Your task to perform on an android device: Clear the cart on walmart.com. Search for "asus rog" on walmart.com, select the first entry, and add it to the cart. Image 0: 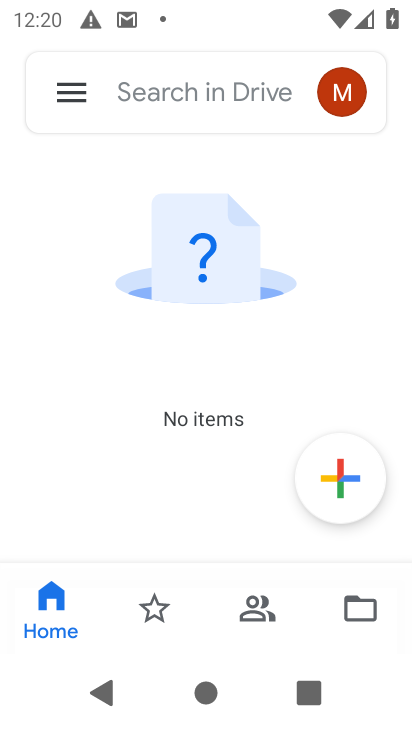
Step 0: press home button
Your task to perform on an android device: Clear the cart on walmart.com. Search for "asus rog" on walmart.com, select the first entry, and add it to the cart. Image 1: 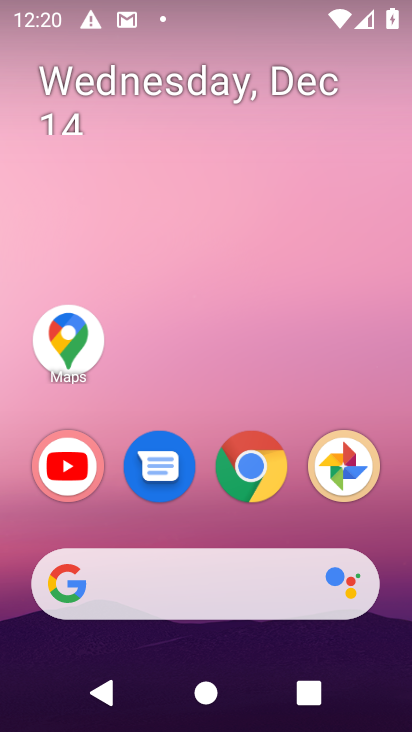
Step 1: click (198, 586)
Your task to perform on an android device: Clear the cart on walmart.com. Search for "asus rog" on walmart.com, select the first entry, and add it to the cart. Image 2: 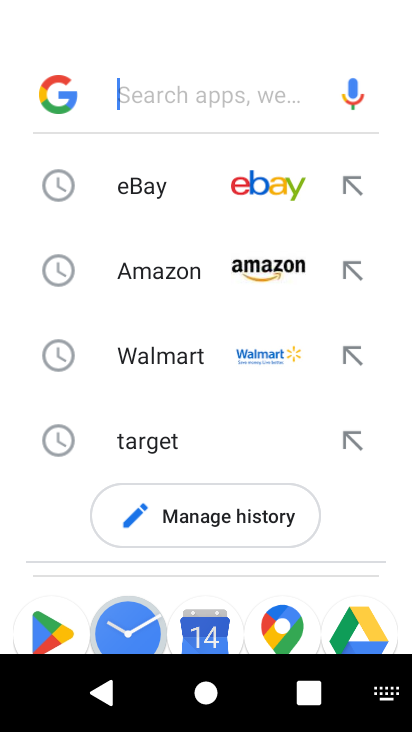
Step 2: type " walmart.com"
Your task to perform on an android device: Clear the cart on walmart.com. Search for "asus rog" on walmart.com, select the first entry, and add it to the cart. Image 3: 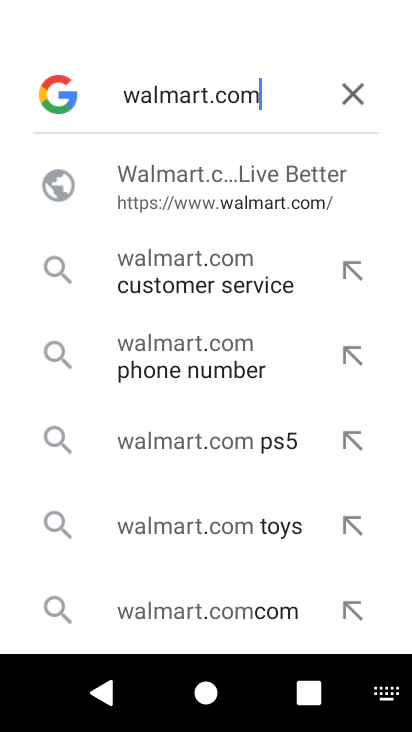
Step 3: click (295, 181)
Your task to perform on an android device: Clear the cart on walmart.com. Search for "asus rog" on walmart.com, select the first entry, and add it to the cart. Image 4: 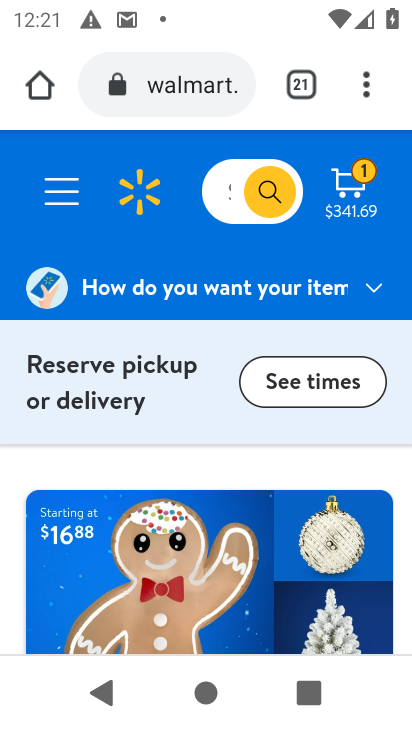
Step 4: click (358, 185)
Your task to perform on an android device: Clear the cart on walmart.com. Search for "asus rog" on walmart.com, select the first entry, and add it to the cart. Image 5: 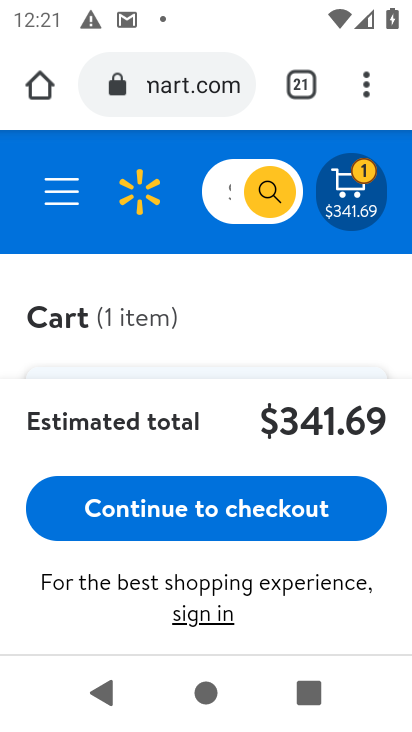
Step 5: drag from (128, 331) to (114, 203)
Your task to perform on an android device: Clear the cart on walmart.com. Search for "asus rog" on walmart.com, select the first entry, and add it to the cart. Image 6: 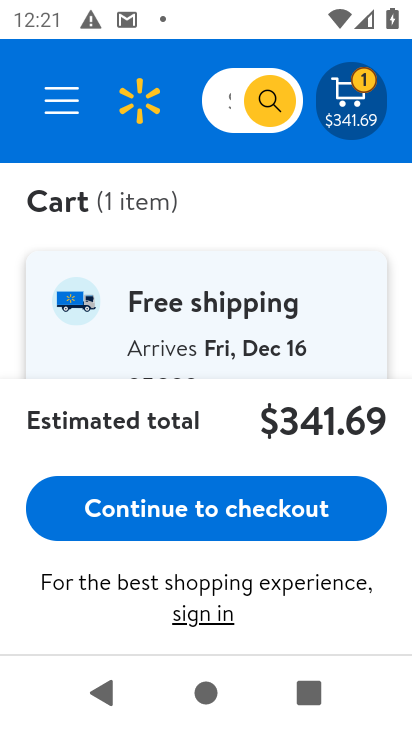
Step 6: drag from (162, 324) to (91, 169)
Your task to perform on an android device: Clear the cart on walmart.com. Search for "asus rog" on walmart.com, select the first entry, and add it to the cart. Image 7: 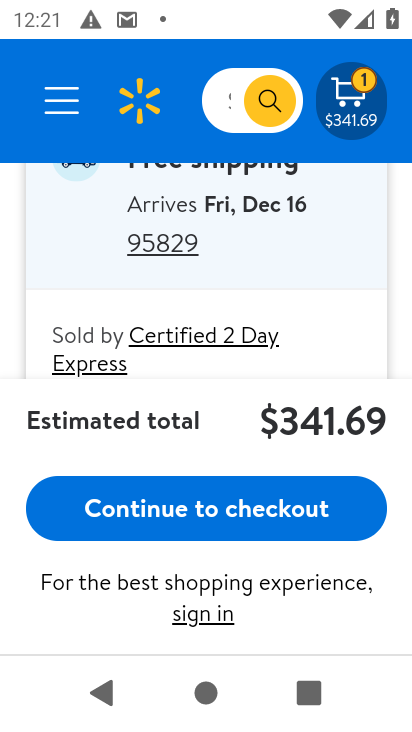
Step 7: click (91, 169)
Your task to perform on an android device: Clear the cart on walmart.com. Search for "asus rog" on walmart.com, select the first entry, and add it to the cart. Image 8: 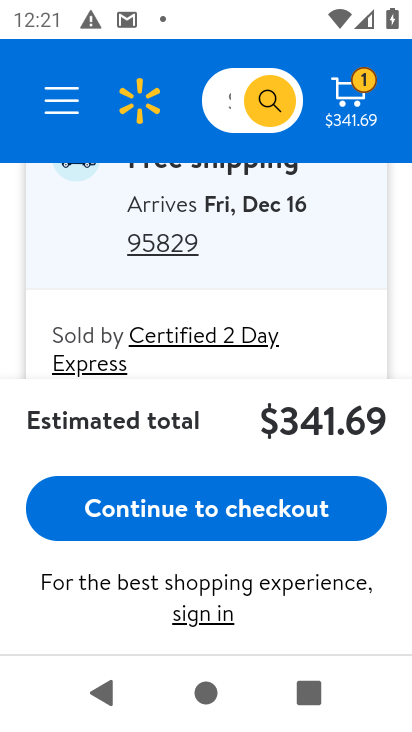
Step 8: drag from (121, 278) to (47, 89)
Your task to perform on an android device: Clear the cart on walmart.com. Search for "asus rog" on walmart.com, select the first entry, and add it to the cart. Image 9: 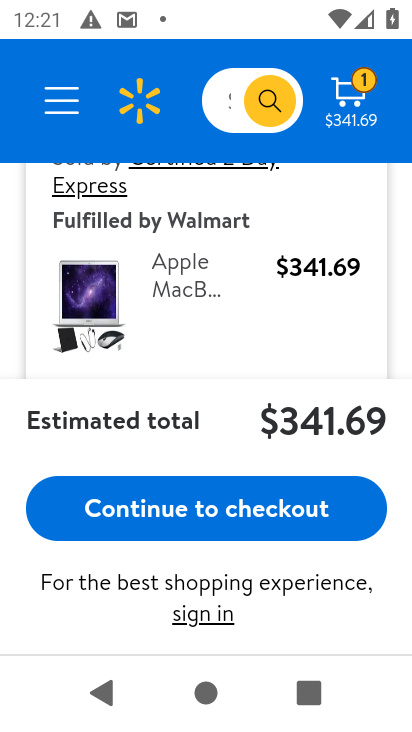
Step 9: drag from (253, 335) to (159, 155)
Your task to perform on an android device: Clear the cart on walmart.com. Search for "asus rog" on walmart.com, select the first entry, and add it to the cart. Image 10: 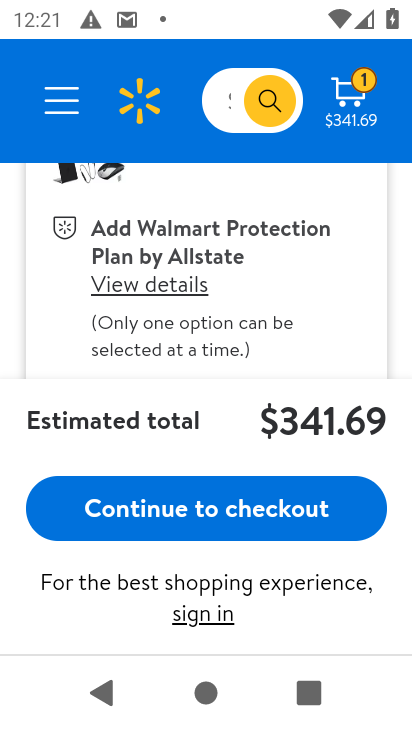
Step 10: click (193, 331)
Your task to perform on an android device: Clear the cart on walmart.com. Search for "asus rog" on walmart.com, select the first entry, and add it to the cart. Image 11: 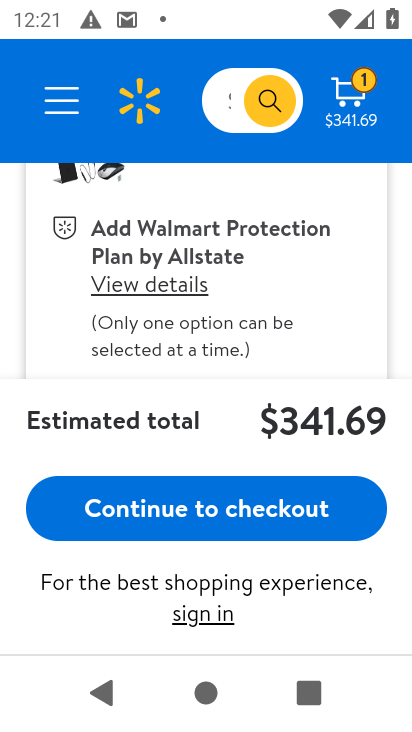
Step 11: drag from (249, 281) to (181, 163)
Your task to perform on an android device: Clear the cart on walmart.com. Search for "asus rog" on walmart.com, select the first entry, and add it to the cart. Image 12: 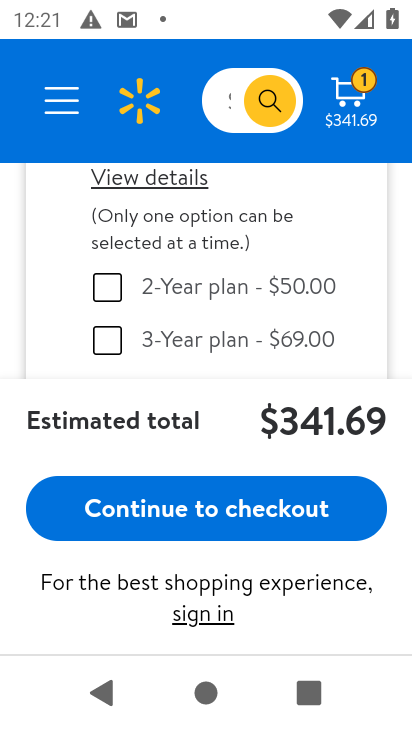
Step 12: drag from (287, 340) to (141, 138)
Your task to perform on an android device: Clear the cart on walmart.com. Search for "asus rog" on walmart.com, select the first entry, and add it to the cart. Image 13: 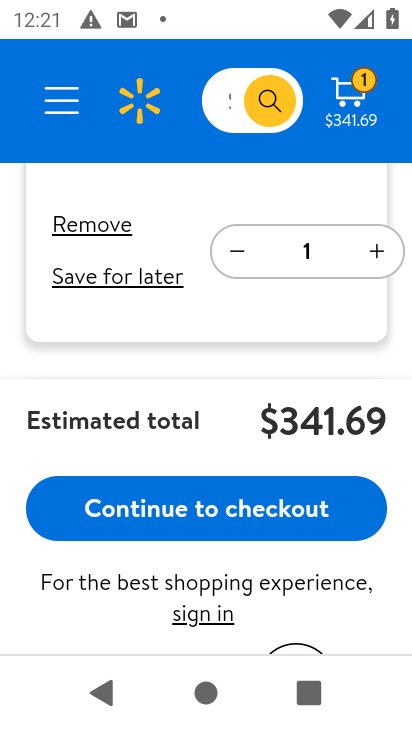
Step 13: click (91, 229)
Your task to perform on an android device: Clear the cart on walmart.com. Search for "asus rog" on walmart.com, select the first entry, and add it to the cart. Image 14: 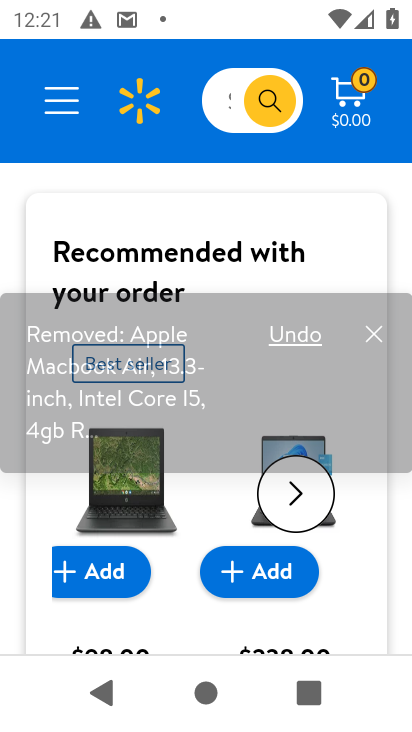
Step 14: click (377, 329)
Your task to perform on an android device: Clear the cart on walmart.com. Search for "asus rog" on walmart.com, select the first entry, and add it to the cart. Image 15: 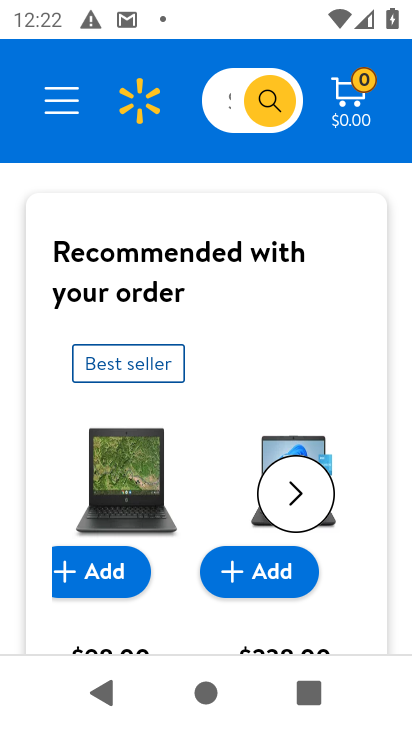
Step 15: click (219, 105)
Your task to perform on an android device: Clear the cart on walmart.com. Search for "asus rog" on walmart.com, select the first entry, and add it to the cart. Image 16: 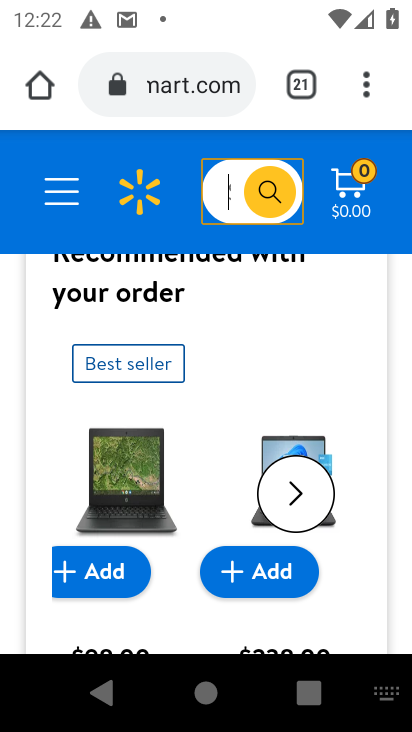
Step 16: type "asus rog""
Your task to perform on an android device: Clear the cart on walmart.com. Search for "asus rog" on walmart.com, select the first entry, and add it to the cart. Image 17: 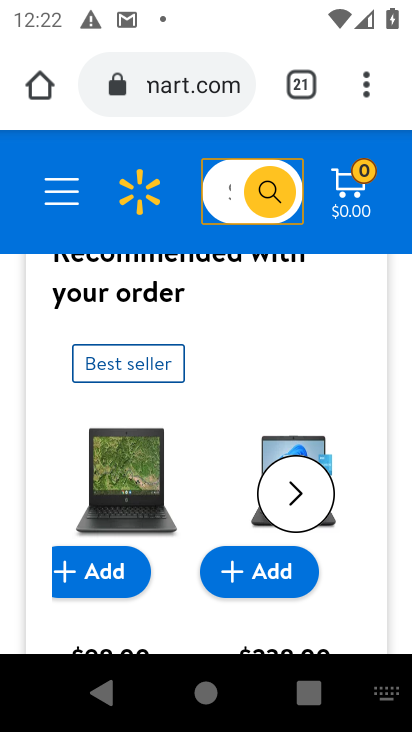
Step 17: click (225, 192)
Your task to perform on an android device: Clear the cart on walmart.com. Search for "asus rog" on walmart.com, select the first entry, and add it to the cart. Image 18: 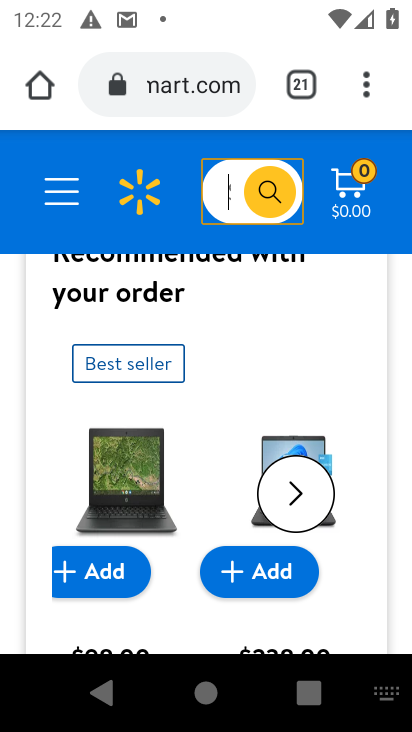
Step 18: click (225, 192)
Your task to perform on an android device: Clear the cart on walmart.com. Search for "asus rog" on walmart.com, select the first entry, and add it to the cart. Image 19: 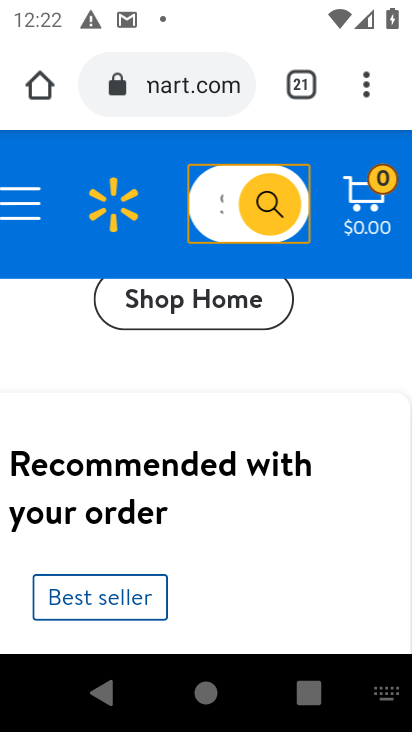
Step 19: click (265, 198)
Your task to perform on an android device: Clear the cart on walmart.com. Search for "asus rog" on walmart.com, select the first entry, and add it to the cart. Image 20: 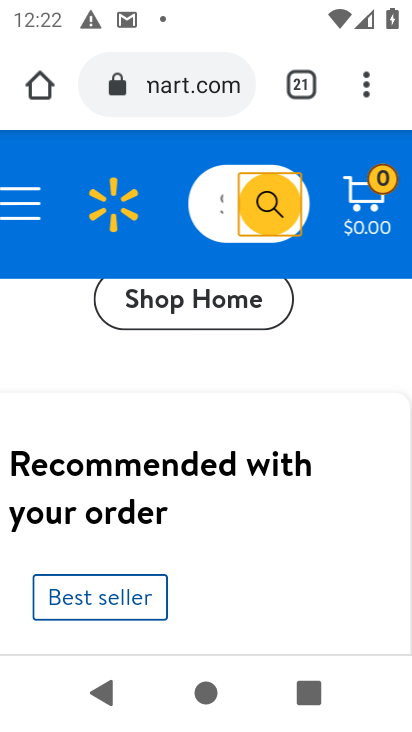
Step 20: click (265, 198)
Your task to perform on an android device: Clear the cart on walmart.com. Search for "asus rog" on walmart.com, select the first entry, and add it to the cart. Image 21: 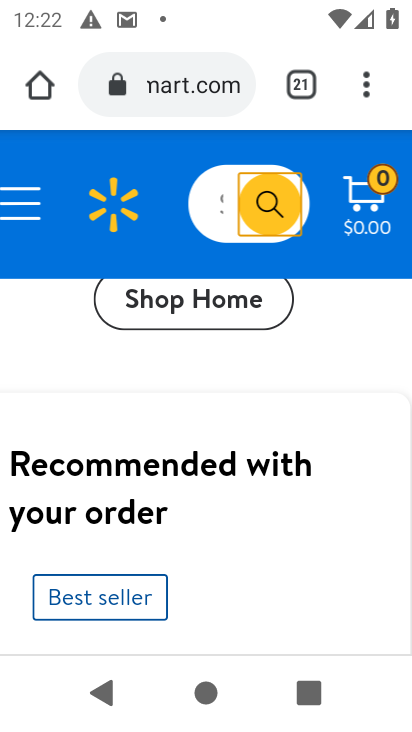
Step 21: click (253, 203)
Your task to perform on an android device: Clear the cart on walmart.com. Search for "asus rog" on walmart.com, select the first entry, and add it to the cart. Image 22: 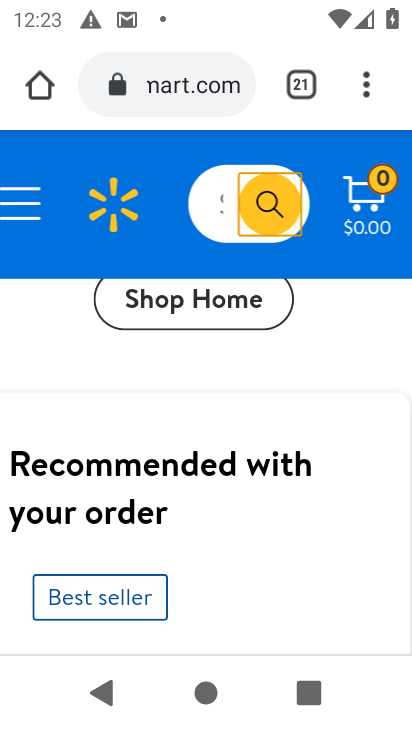
Step 22: click (253, 203)
Your task to perform on an android device: Clear the cart on walmart.com. Search for "asus rog" on walmart.com, select the first entry, and add it to the cart. Image 23: 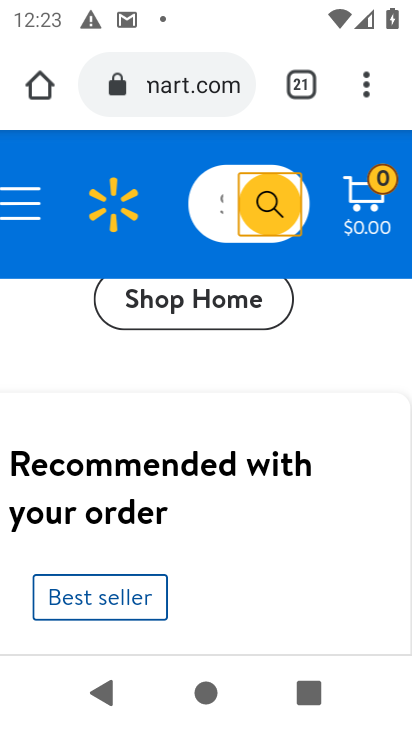
Step 23: click (253, 203)
Your task to perform on an android device: Clear the cart on walmart.com. Search for "asus rog" on walmart.com, select the first entry, and add it to the cart. Image 24: 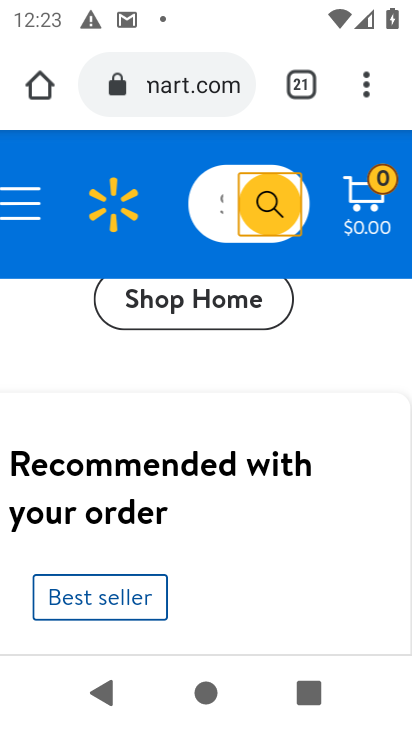
Step 24: click (253, 203)
Your task to perform on an android device: Clear the cart on walmart.com. Search for "asus rog" on walmart.com, select the first entry, and add it to the cart. Image 25: 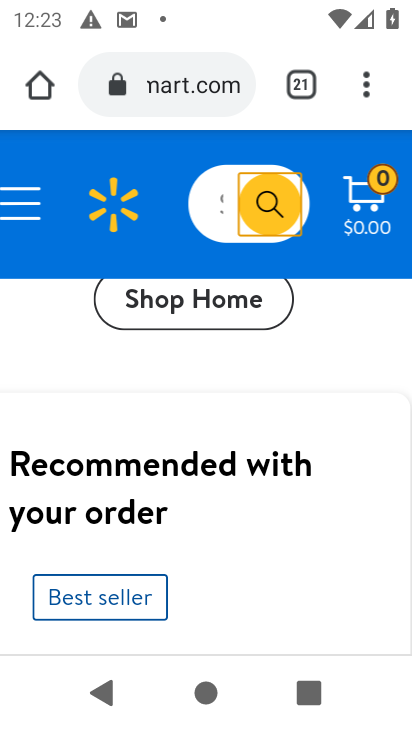
Step 25: task complete